Your task to perform on an android device: turn smart compose on in the gmail app Image 0: 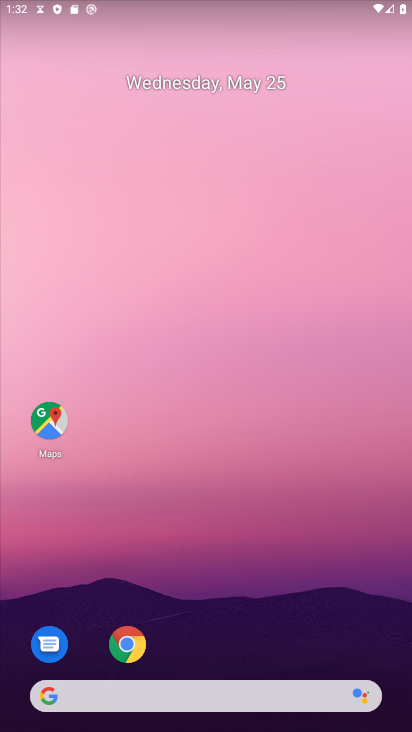
Step 0: drag from (195, 605) to (189, 160)
Your task to perform on an android device: turn smart compose on in the gmail app Image 1: 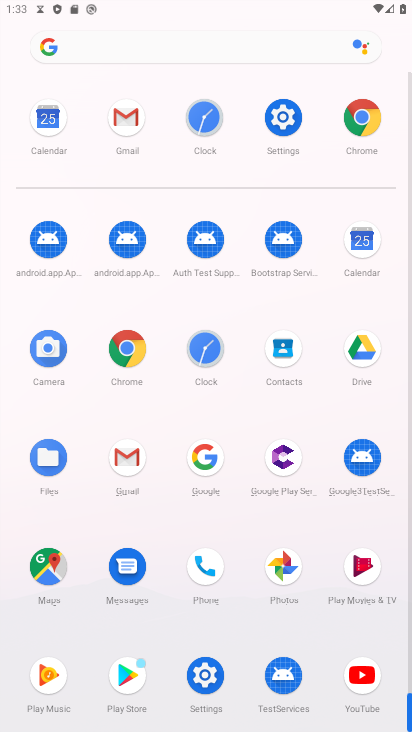
Step 1: click (114, 473)
Your task to perform on an android device: turn smart compose on in the gmail app Image 2: 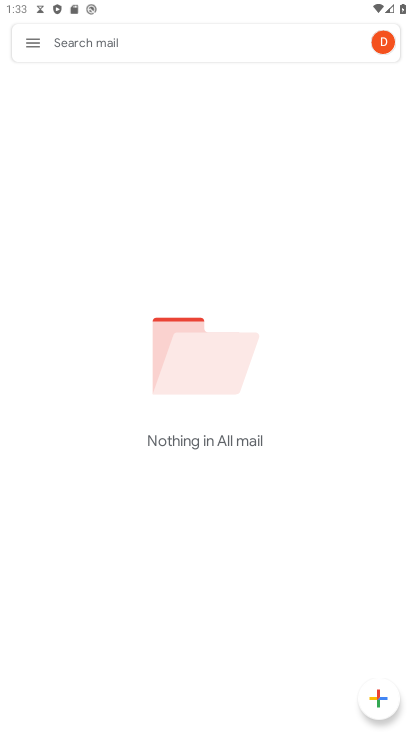
Step 2: click (33, 43)
Your task to perform on an android device: turn smart compose on in the gmail app Image 3: 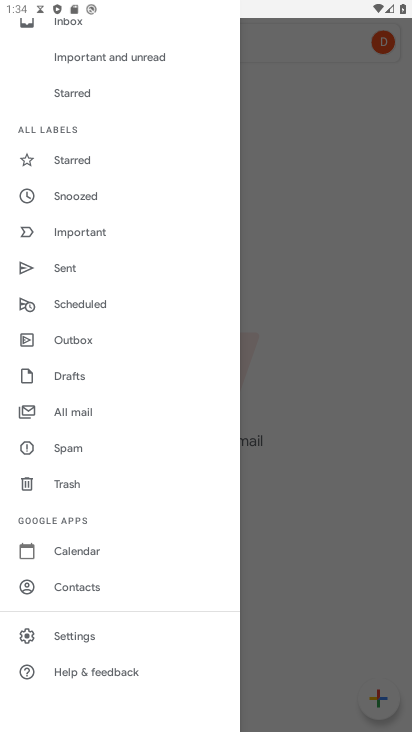
Step 3: click (85, 637)
Your task to perform on an android device: turn smart compose on in the gmail app Image 4: 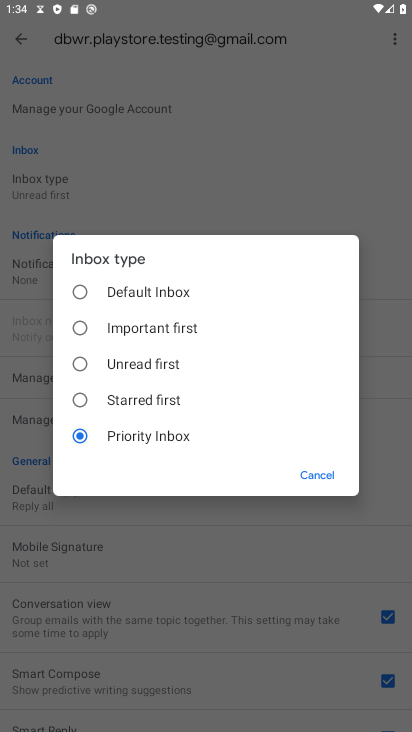
Step 4: click (321, 478)
Your task to perform on an android device: turn smart compose on in the gmail app Image 5: 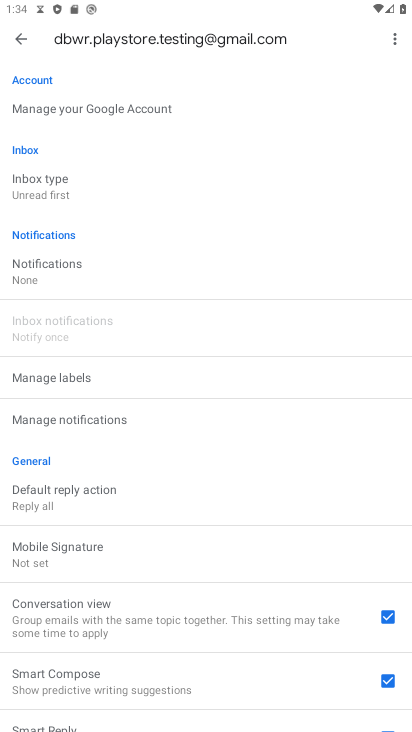
Step 5: task complete